Your task to perform on an android device: Open the stopwatch Image 0: 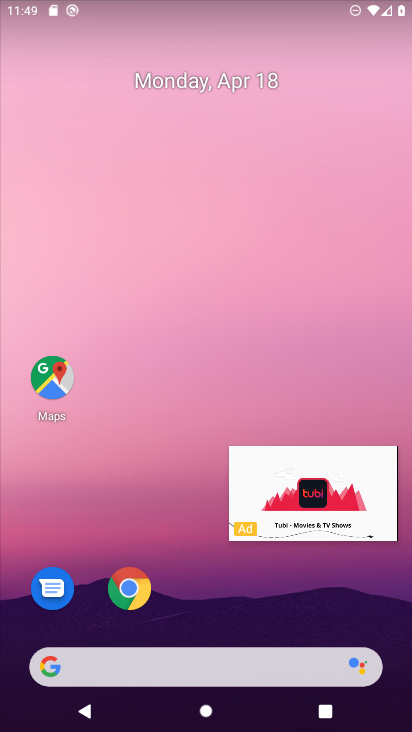
Step 0: click (386, 456)
Your task to perform on an android device: Open the stopwatch Image 1: 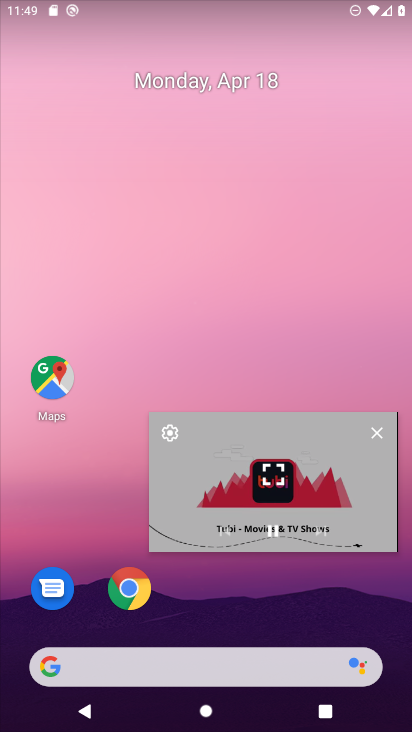
Step 1: click (373, 429)
Your task to perform on an android device: Open the stopwatch Image 2: 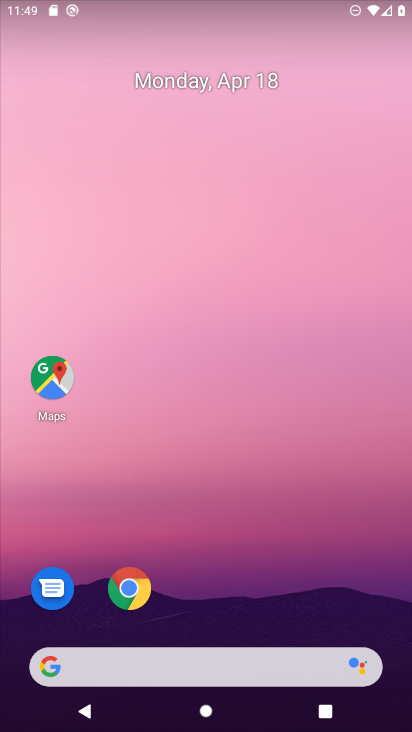
Step 2: drag from (336, 503) to (281, 28)
Your task to perform on an android device: Open the stopwatch Image 3: 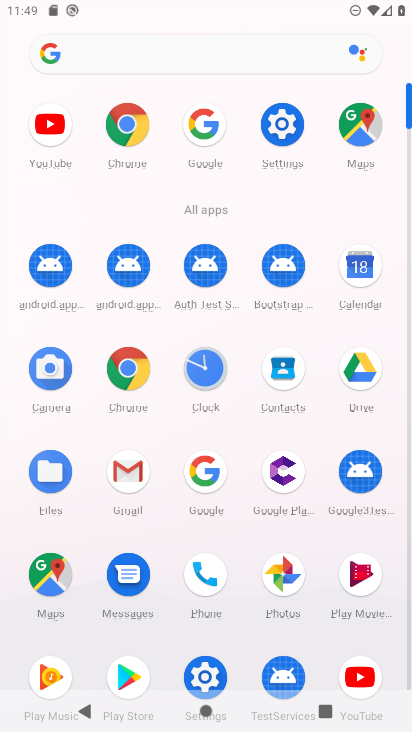
Step 3: click (202, 368)
Your task to perform on an android device: Open the stopwatch Image 4: 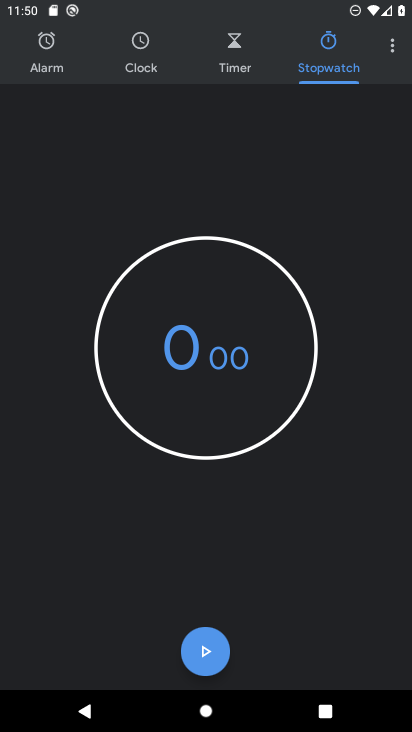
Step 4: task complete